Your task to perform on an android device: turn on bluetooth scan Image 0: 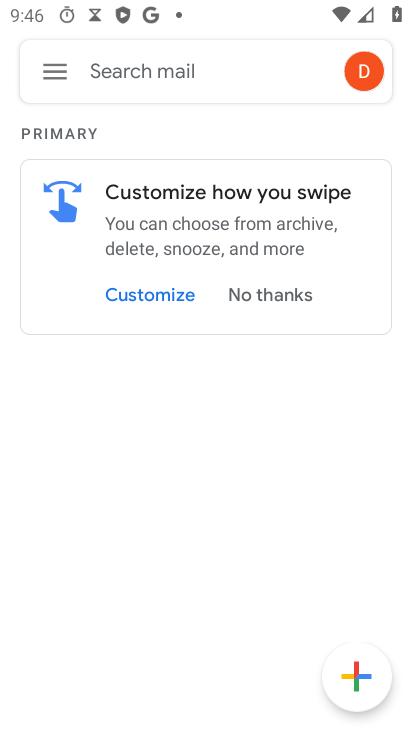
Step 0: press home button
Your task to perform on an android device: turn on bluetooth scan Image 1: 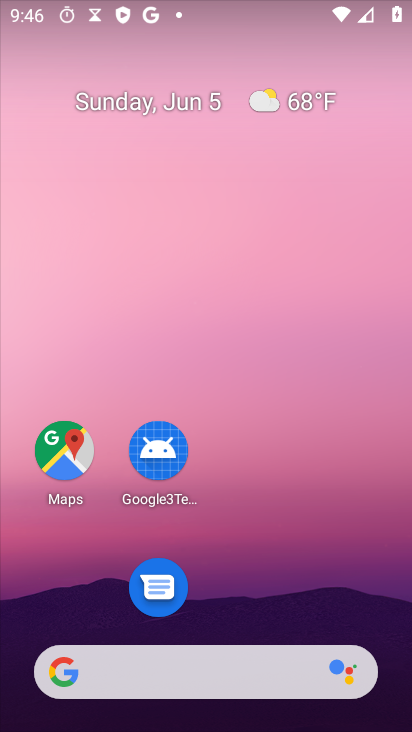
Step 1: drag from (311, 515) to (217, 88)
Your task to perform on an android device: turn on bluetooth scan Image 2: 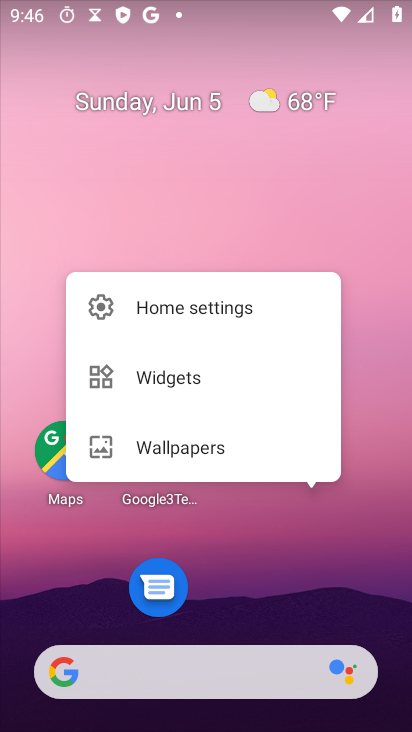
Step 2: click (240, 540)
Your task to perform on an android device: turn on bluetooth scan Image 3: 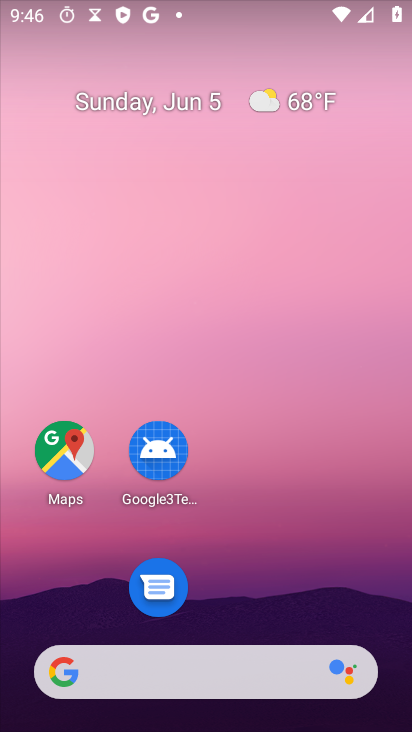
Step 3: click (244, 564)
Your task to perform on an android device: turn on bluetooth scan Image 4: 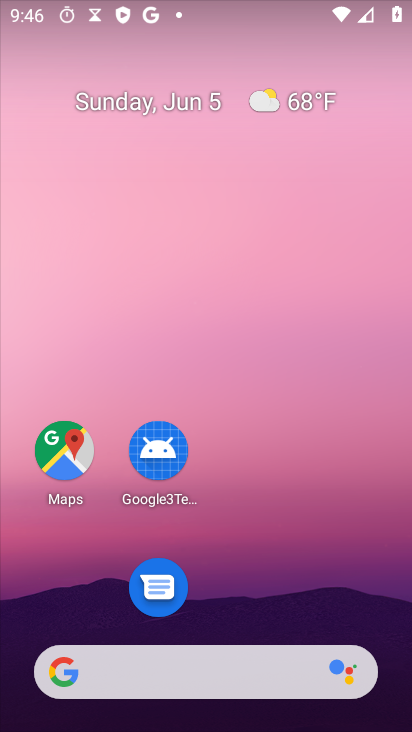
Step 4: drag from (238, 590) to (124, 220)
Your task to perform on an android device: turn on bluetooth scan Image 5: 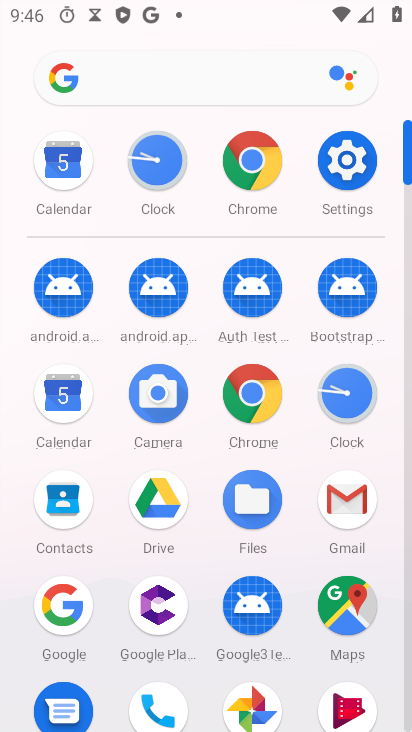
Step 5: click (329, 163)
Your task to perform on an android device: turn on bluetooth scan Image 6: 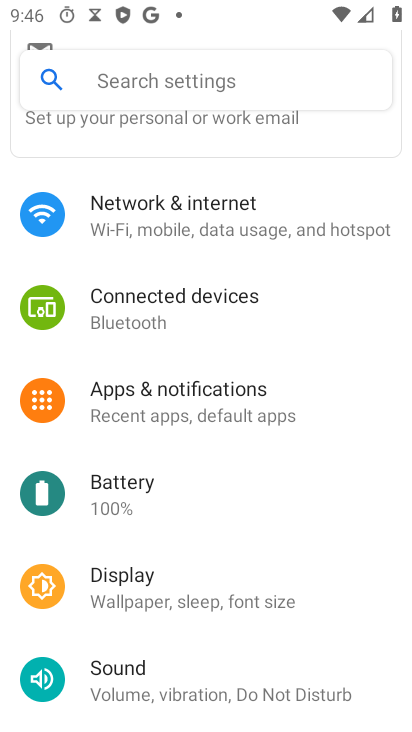
Step 6: drag from (151, 655) to (124, 391)
Your task to perform on an android device: turn on bluetooth scan Image 7: 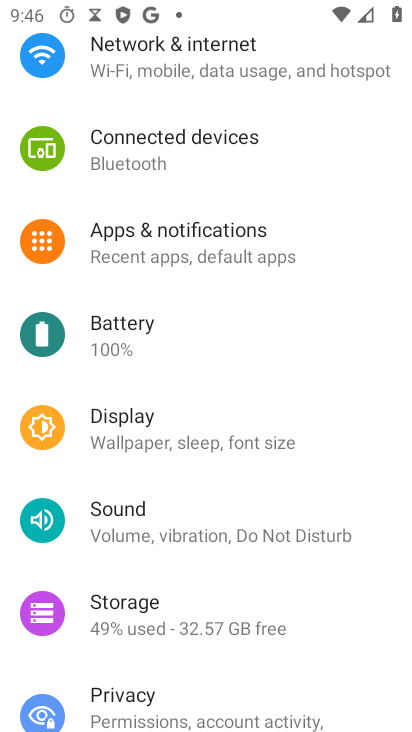
Step 7: drag from (149, 522) to (46, 170)
Your task to perform on an android device: turn on bluetooth scan Image 8: 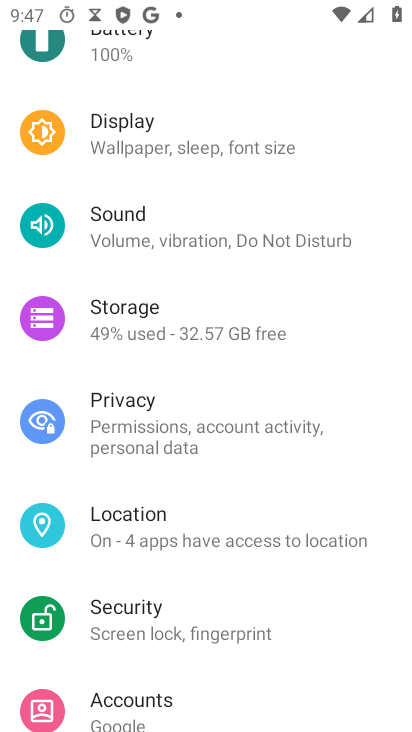
Step 8: click (107, 535)
Your task to perform on an android device: turn on bluetooth scan Image 9: 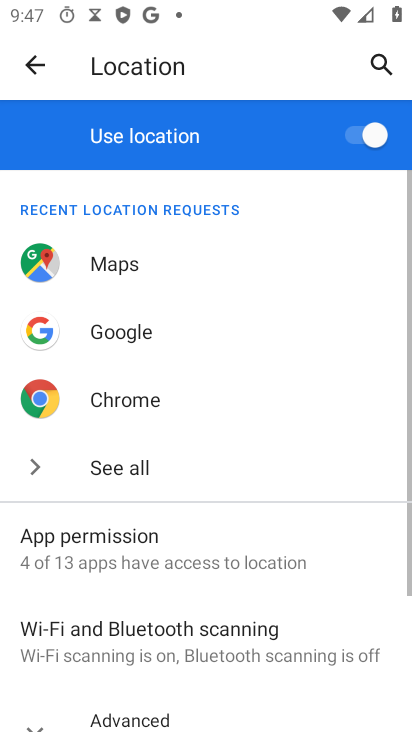
Step 9: click (158, 656)
Your task to perform on an android device: turn on bluetooth scan Image 10: 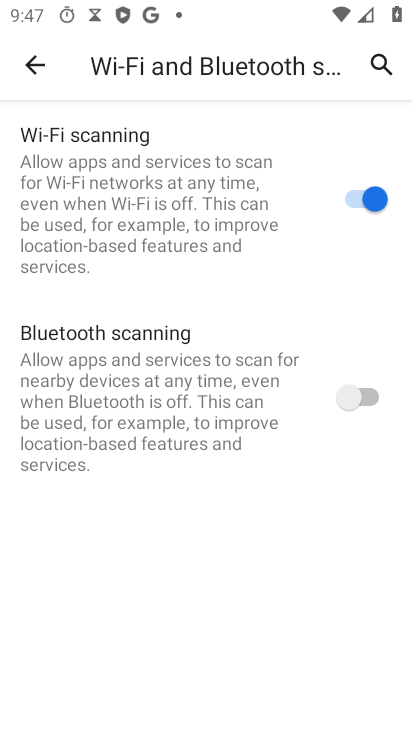
Step 10: click (346, 376)
Your task to perform on an android device: turn on bluetooth scan Image 11: 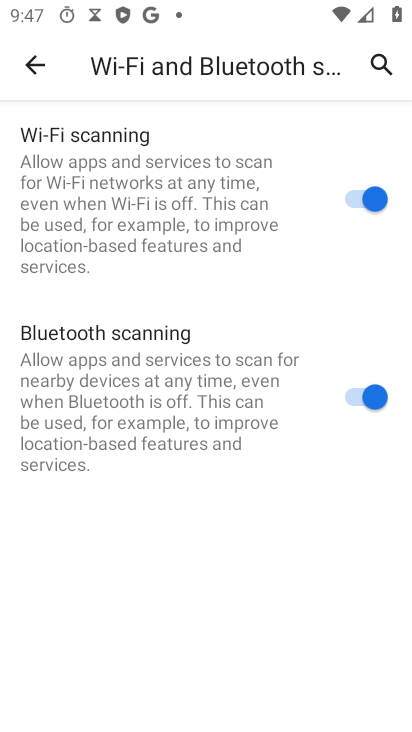
Step 11: task complete